Your task to perform on an android device: turn on priority inbox in the gmail app Image 0: 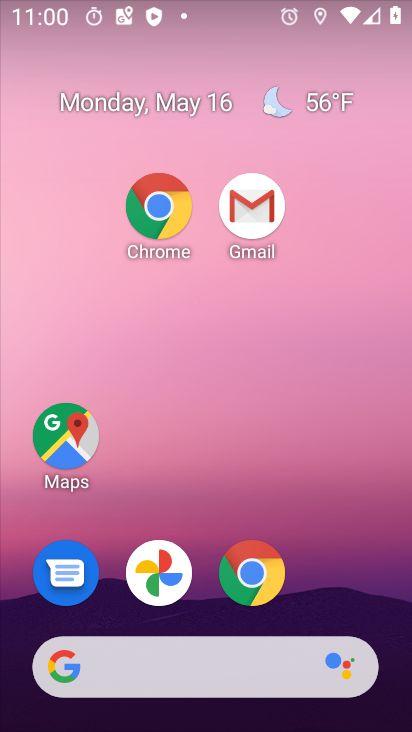
Step 0: drag from (356, 654) to (183, 22)
Your task to perform on an android device: turn on priority inbox in the gmail app Image 1: 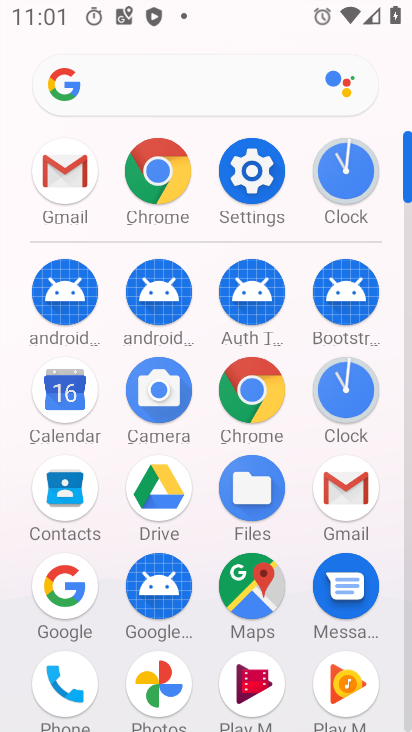
Step 1: click (337, 489)
Your task to perform on an android device: turn on priority inbox in the gmail app Image 2: 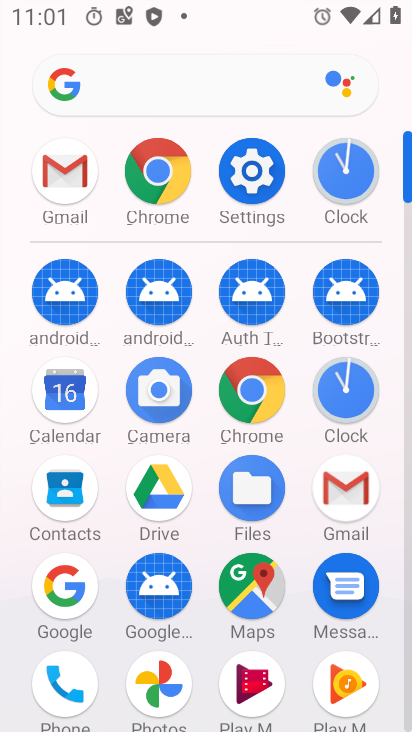
Step 2: click (340, 483)
Your task to perform on an android device: turn on priority inbox in the gmail app Image 3: 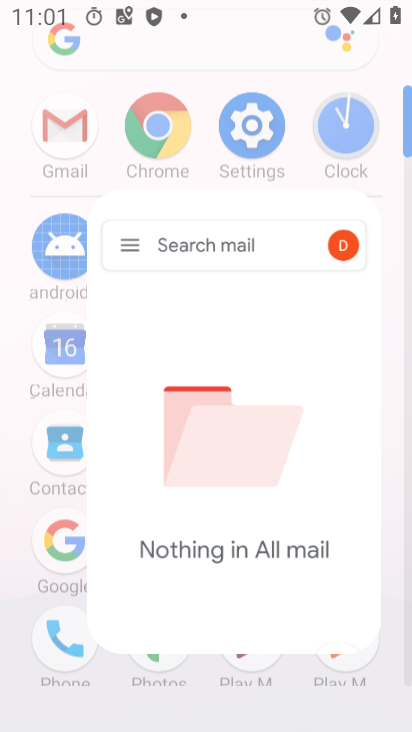
Step 3: click (341, 484)
Your task to perform on an android device: turn on priority inbox in the gmail app Image 4: 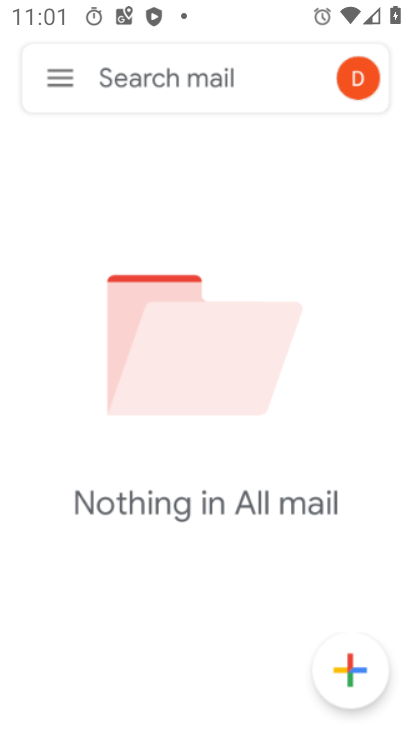
Step 4: click (341, 484)
Your task to perform on an android device: turn on priority inbox in the gmail app Image 5: 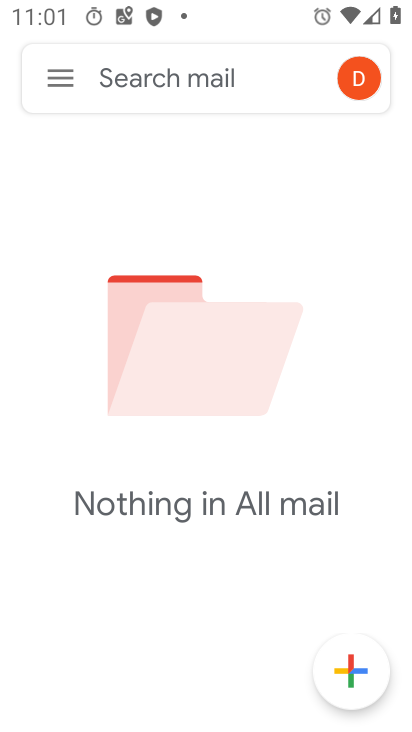
Step 5: click (343, 481)
Your task to perform on an android device: turn on priority inbox in the gmail app Image 6: 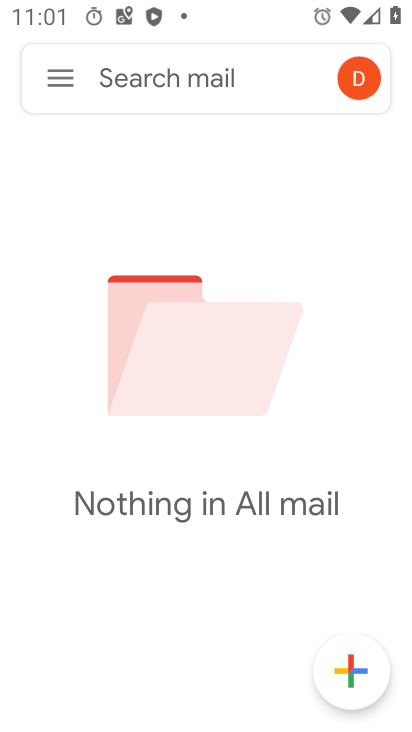
Step 6: click (44, 72)
Your task to perform on an android device: turn on priority inbox in the gmail app Image 7: 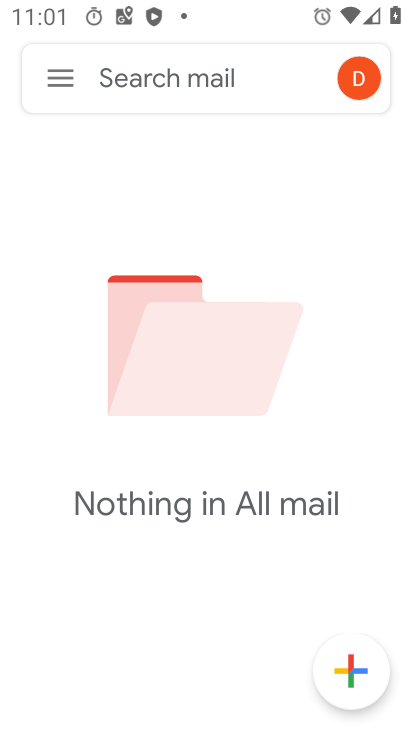
Step 7: click (47, 70)
Your task to perform on an android device: turn on priority inbox in the gmail app Image 8: 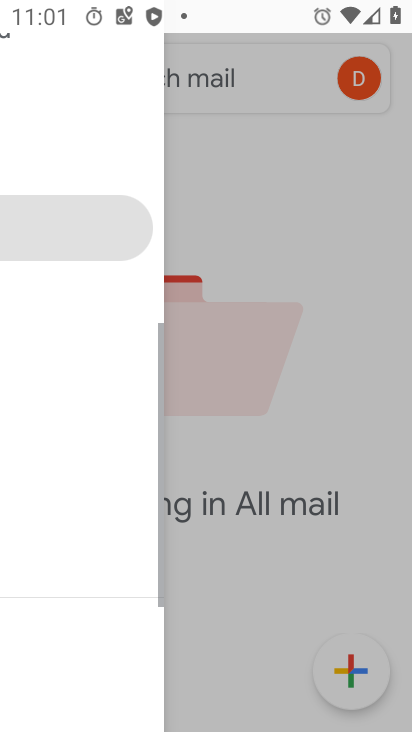
Step 8: click (47, 70)
Your task to perform on an android device: turn on priority inbox in the gmail app Image 9: 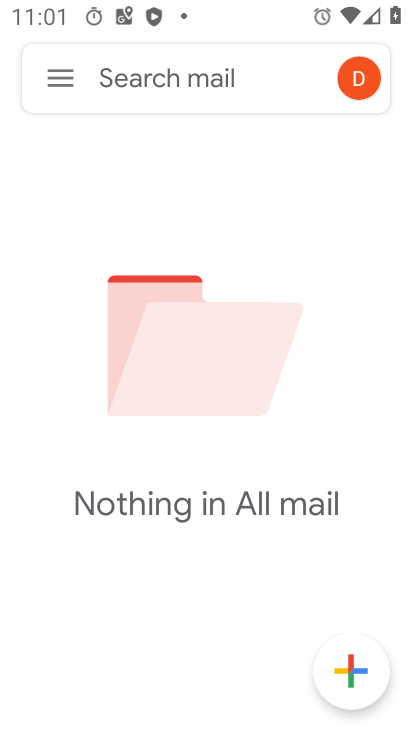
Step 9: drag from (54, 67) to (57, 0)
Your task to perform on an android device: turn on priority inbox in the gmail app Image 10: 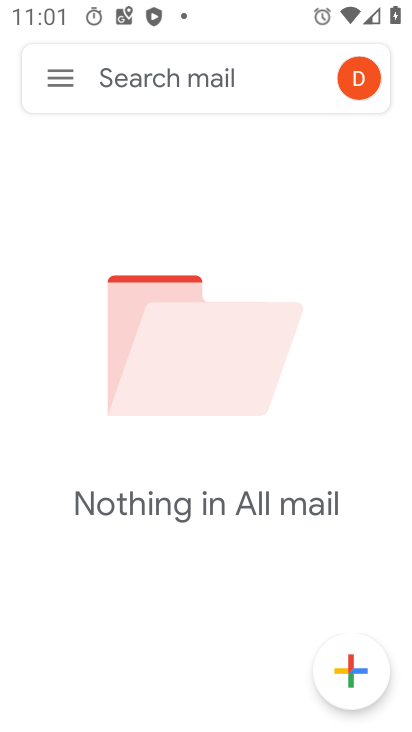
Step 10: click (50, 76)
Your task to perform on an android device: turn on priority inbox in the gmail app Image 11: 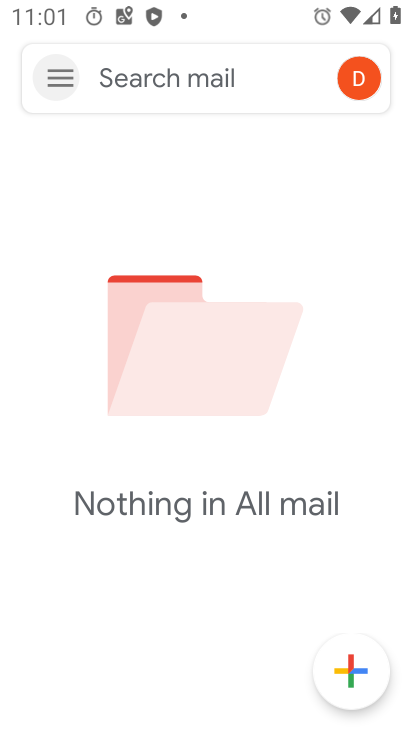
Step 11: click (52, 78)
Your task to perform on an android device: turn on priority inbox in the gmail app Image 12: 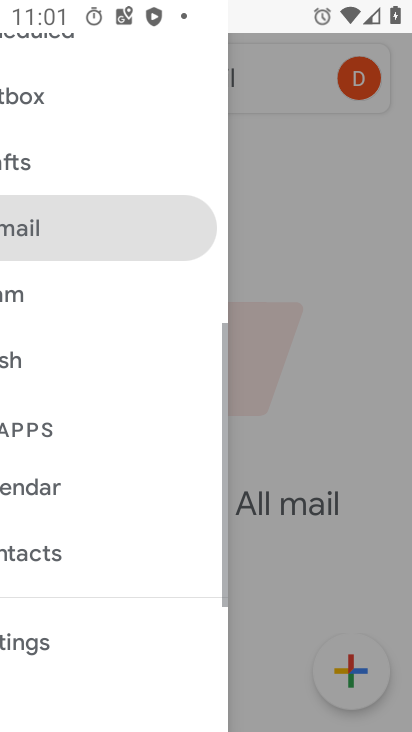
Step 12: click (53, 77)
Your task to perform on an android device: turn on priority inbox in the gmail app Image 13: 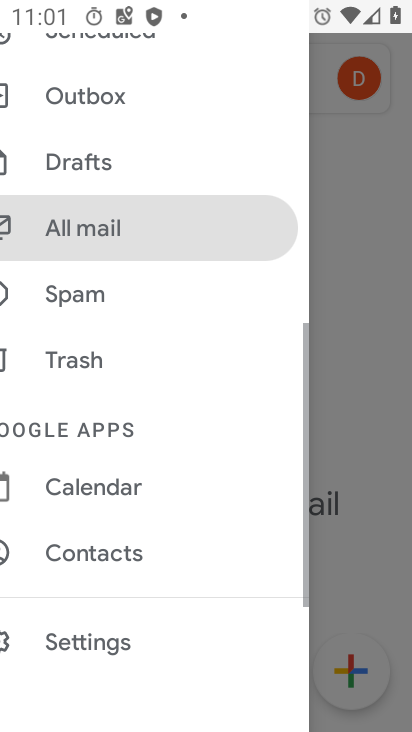
Step 13: click (54, 76)
Your task to perform on an android device: turn on priority inbox in the gmail app Image 14: 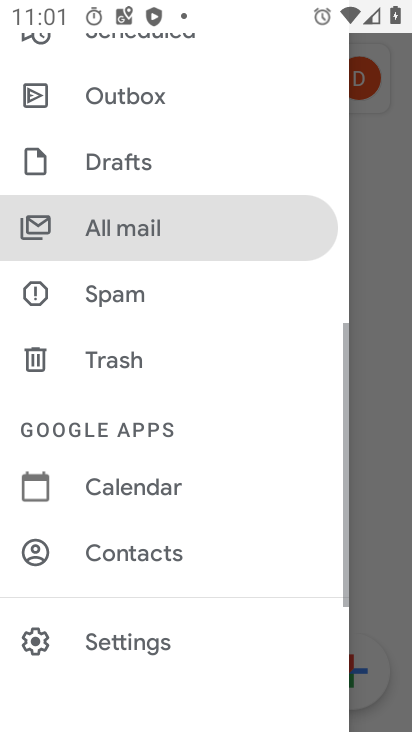
Step 14: click (53, 75)
Your task to perform on an android device: turn on priority inbox in the gmail app Image 15: 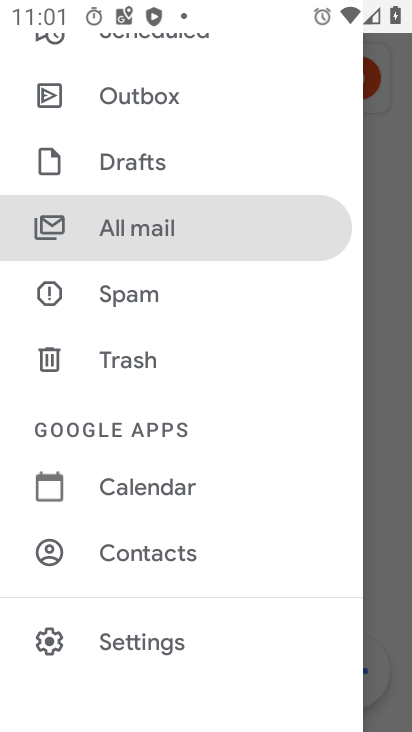
Step 15: click (122, 637)
Your task to perform on an android device: turn on priority inbox in the gmail app Image 16: 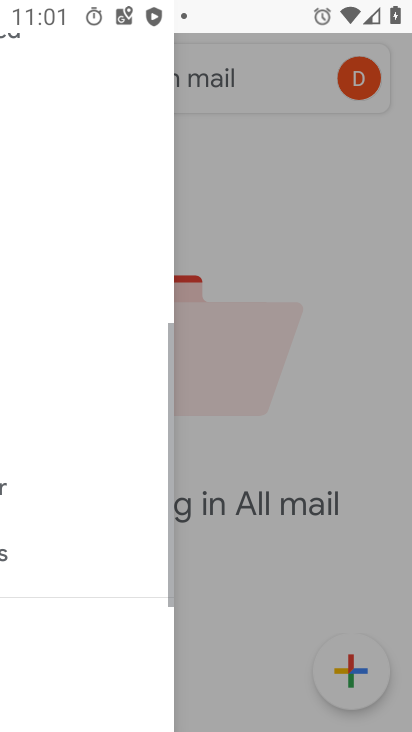
Step 16: click (121, 639)
Your task to perform on an android device: turn on priority inbox in the gmail app Image 17: 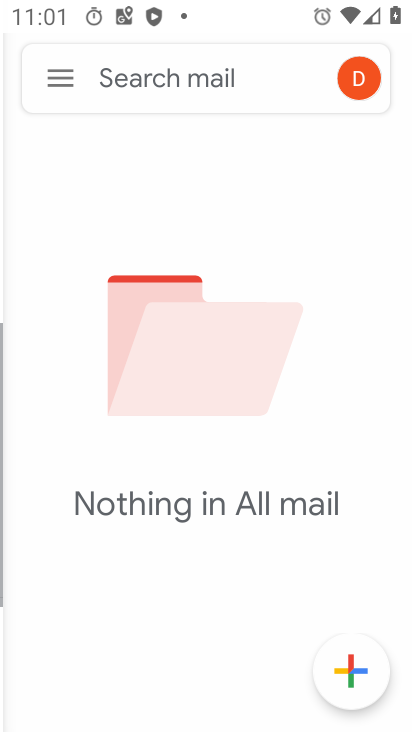
Step 17: click (121, 639)
Your task to perform on an android device: turn on priority inbox in the gmail app Image 18: 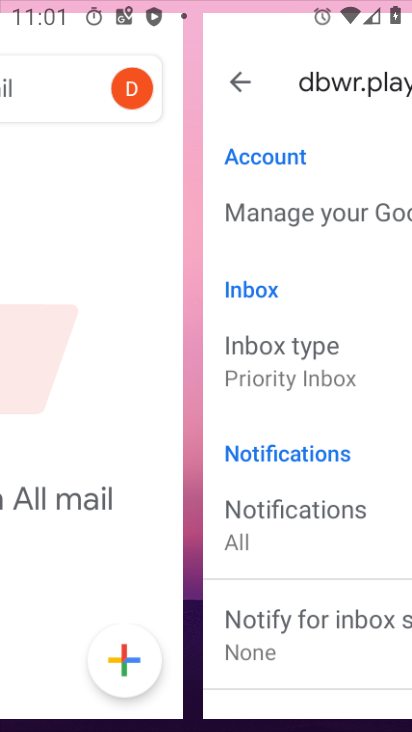
Step 18: click (121, 640)
Your task to perform on an android device: turn on priority inbox in the gmail app Image 19: 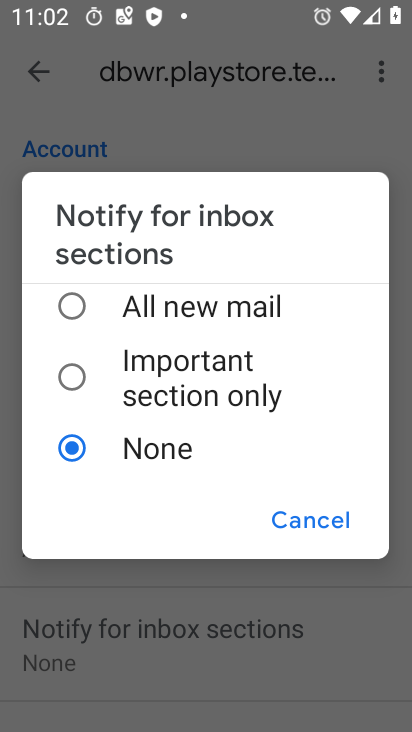
Step 19: click (304, 512)
Your task to perform on an android device: turn on priority inbox in the gmail app Image 20: 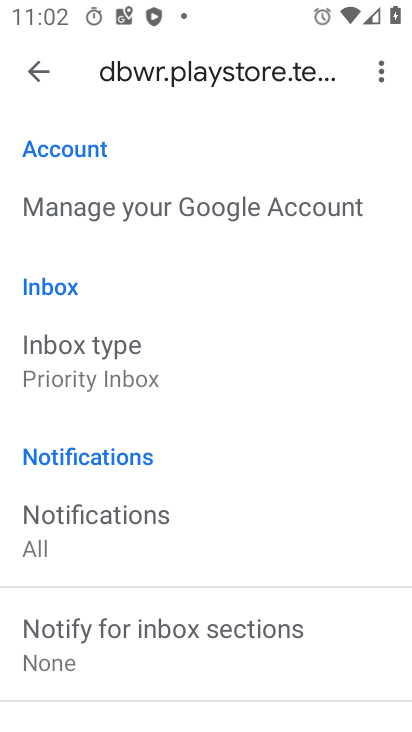
Step 20: click (68, 364)
Your task to perform on an android device: turn on priority inbox in the gmail app Image 21: 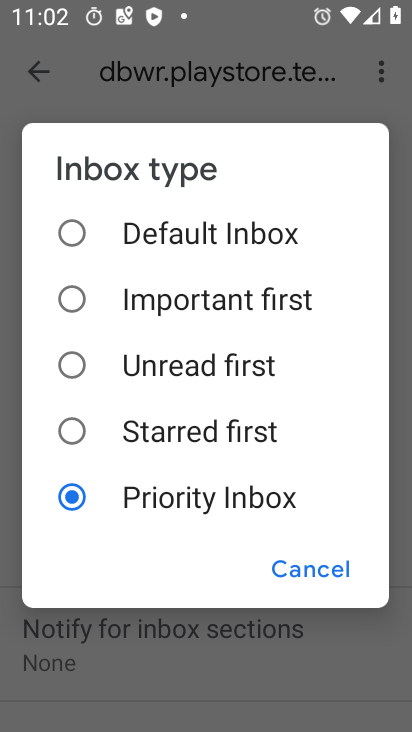
Step 21: task complete